Your task to perform on an android device: Open Yahoo.com Image 0: 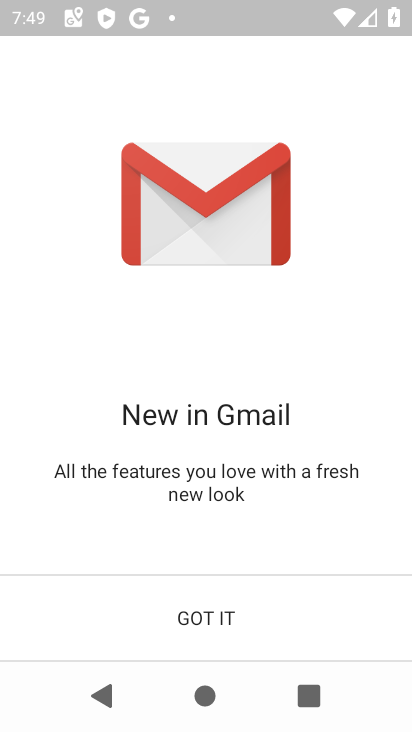
Step 0: click (264, 656)
Your task to perform on an android device: Open Yahoo.com Image 1: 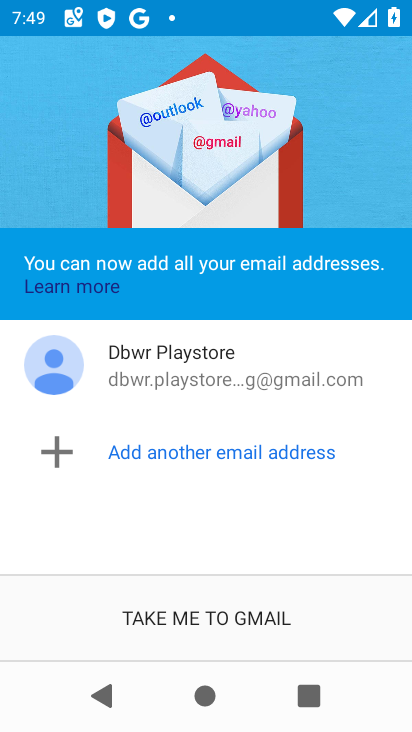
Step 1: click (262, 647)
Your task to perform on an android device: Open Yahoo.com Image 2: 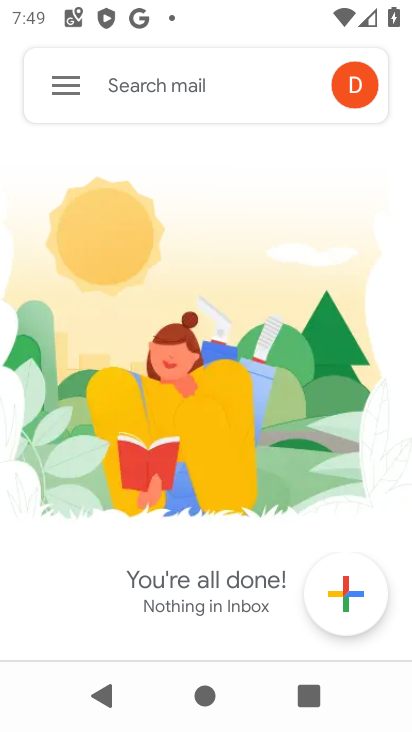
Step 2: press home button
Your task to perform on an android device: Open Yahoo.com Image 3: 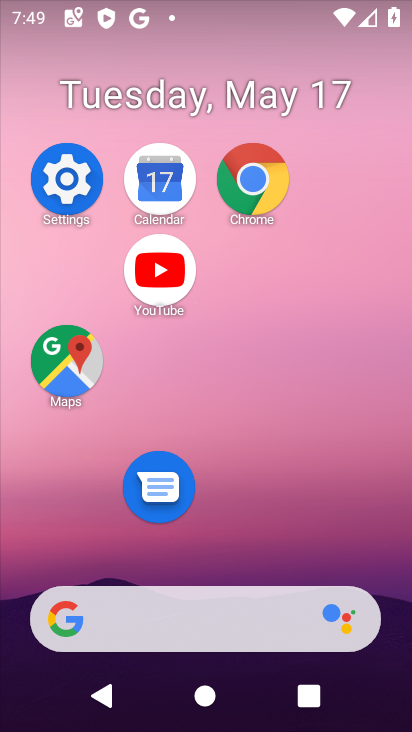
Step 3: click (263, 191)
Your task to perform on an android device: Open Yahoo.com Image 4: 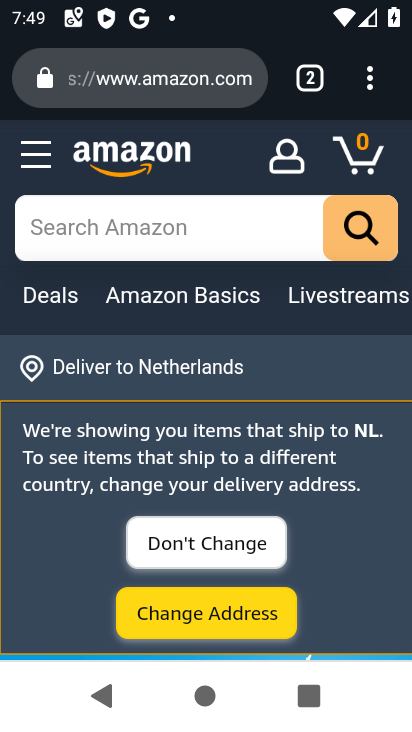
Step 4: click (297, 81)
Your task to perform on an android device: Open Yahoo.com Image 5: 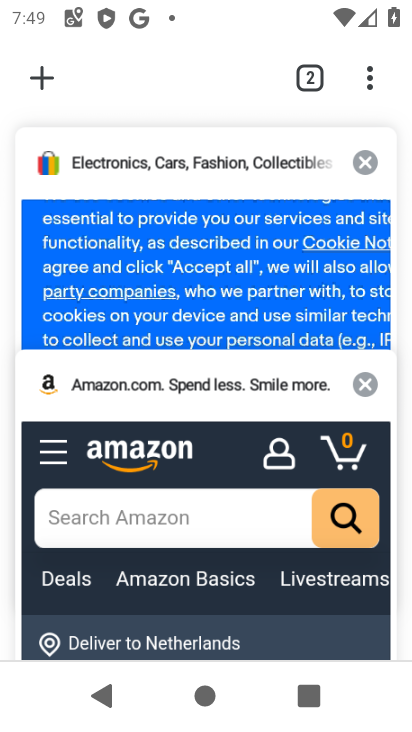
Step 5: click (40, 78)
Your task to perform on an android device: Open Yahoo.com Image 6: 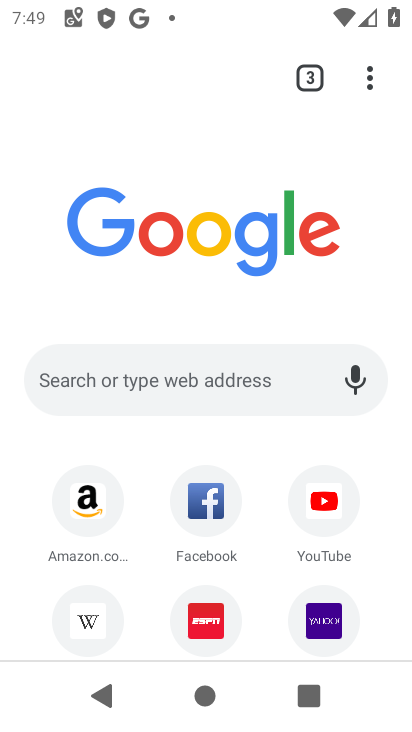
Step 6: click (335, 623)
Your task to perform on an android device: Open Yahoo.com Image 7: 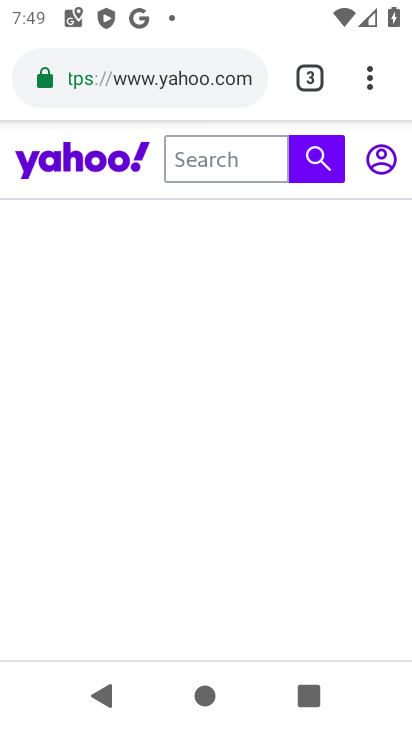
Step 7: task complete